Your task to perform on an android device: toggle javascript in the chrome app Image 0: 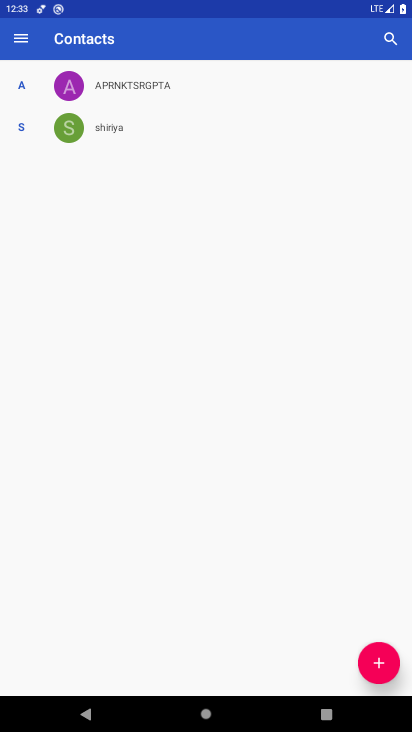
Step 0: press home button
Your task to perform on an android device: toggle javascript in the chrome app Image 1: 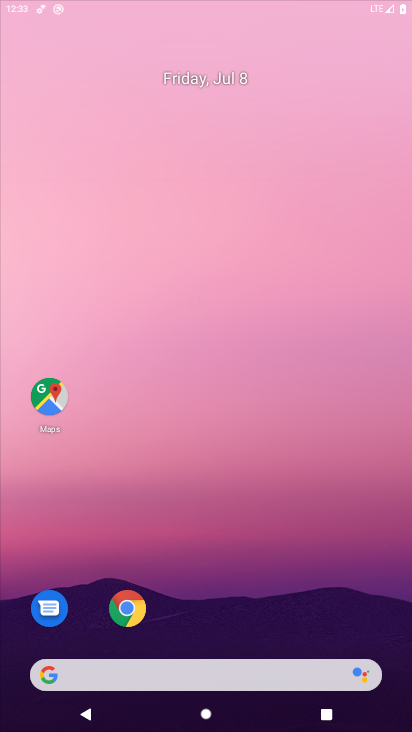
Step 1: drag from (282, 653) to (185, 256)
Your task to perform on an android device: toggle javascript in the chrome app Image 2: 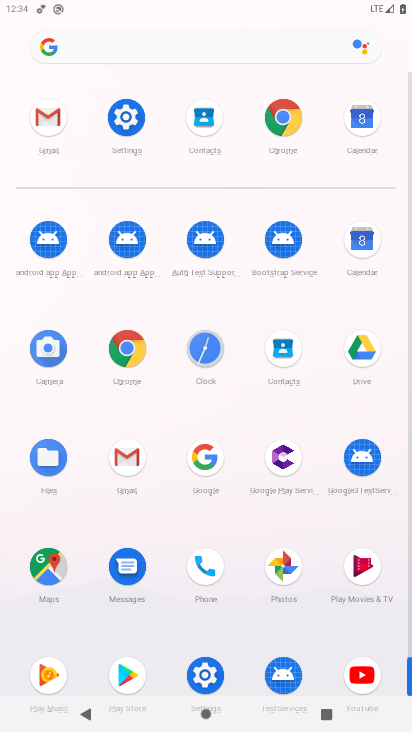
Step 2: click (293, 134)
Your task to perform on an android device: toggle javascript in the chrome app Image 3: 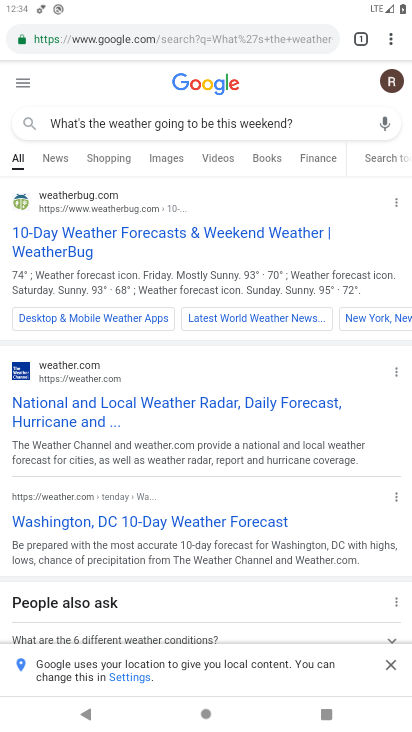
Step 3: drag from (389, 35) to (248, 448)
Your task to perform on an android device: toggle javascript in the chrome app Image 4: 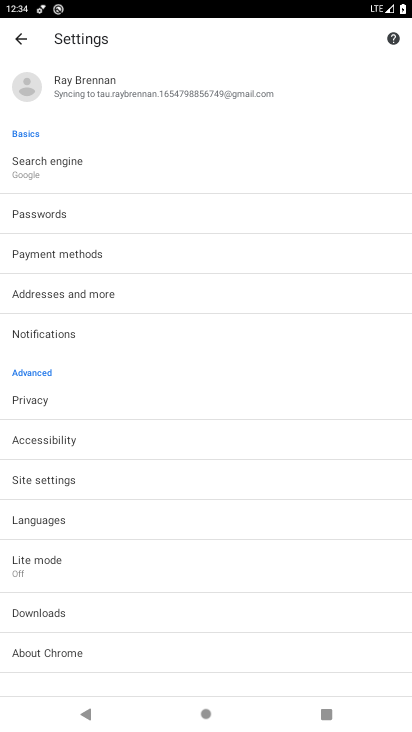
Step 4: click (41, 482)
Your task to perform on an android device: toggle javascript in the chrome app Image 5: 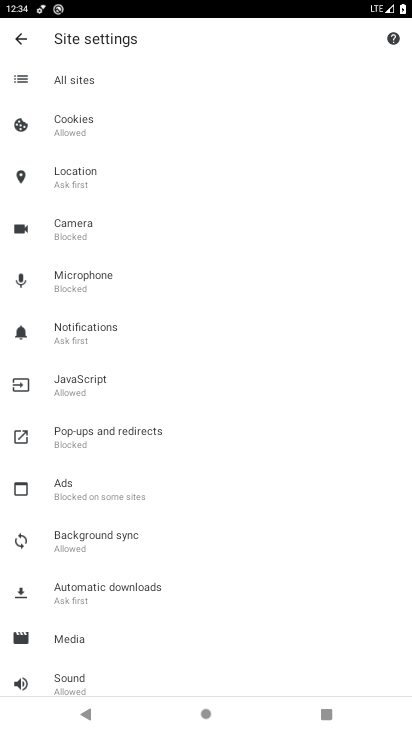
Step 5: click (83, 387)
Your task to perform on an android device: toggle javascript in the chrome app Image 6: 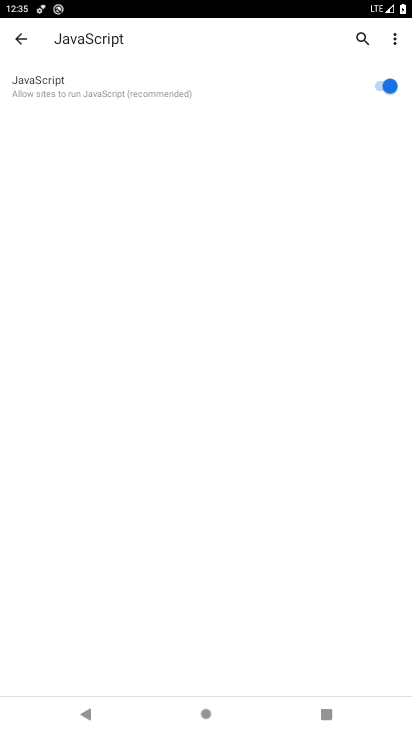
Step 6: task complete